Your task to perform on an android device: Search for vegetarian restaurants on Maps Image 0: 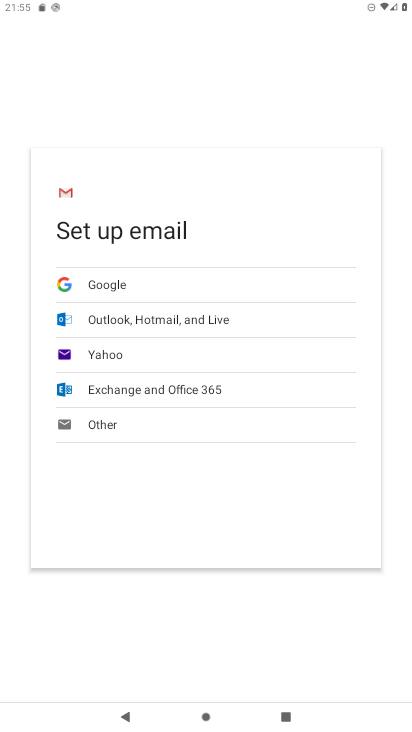
Step 0: press home button
Your task to perform on an android device: Search for vegetarian restaurants on Maps Image 1: 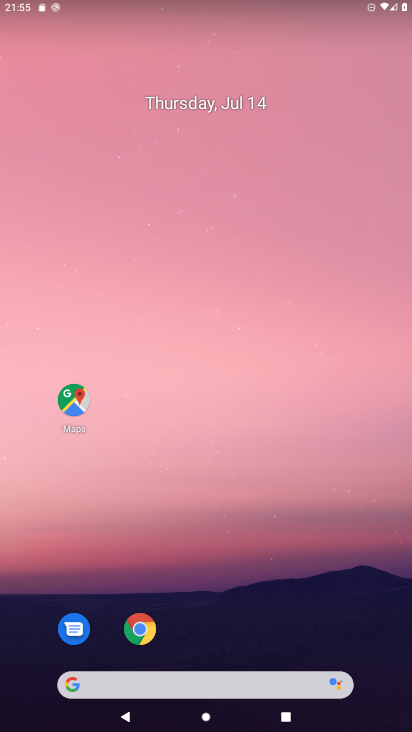
Step 1: click (55, 399)
Your task to perform on an android device: Search for vegetarian restaurants on Maps Image 2: 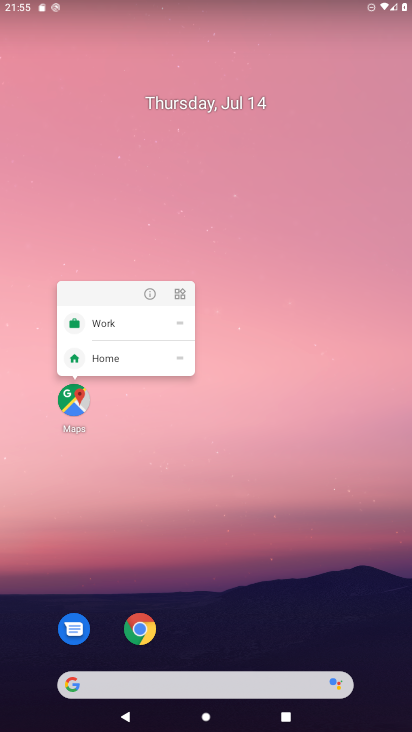
Step 2: click (82, 395)
Your task to perform on an android device: Search for vegetarian restaurants on Maps Image 3: 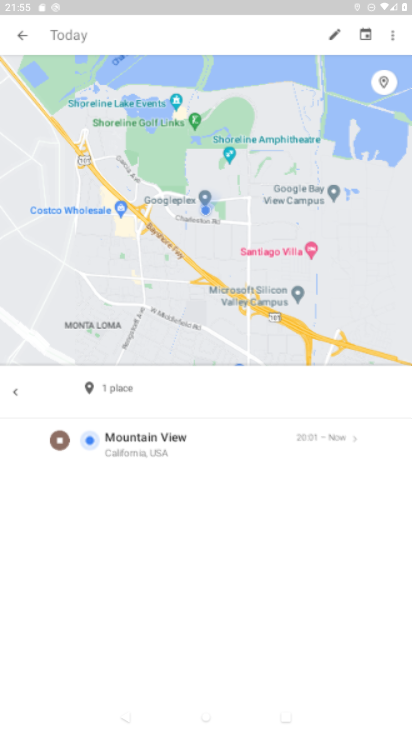
Step 3: click (23, 28)
Your task to perform on an android device: Search for vegetarian restaurants on Maps Image 4: 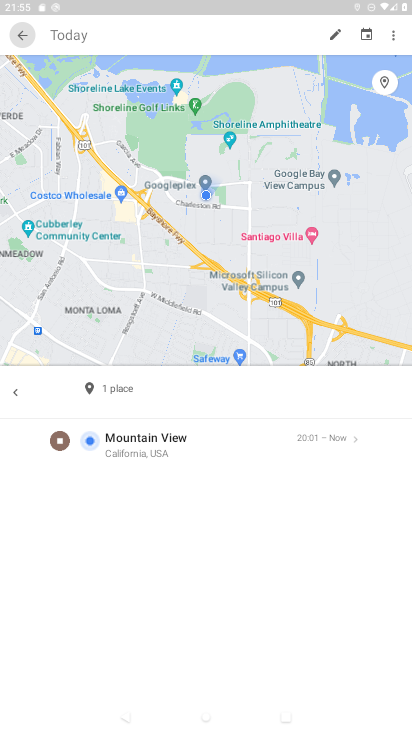
Step 4: click (13, 35)
Your task to perform on an android device: Search for vegetarian restaurants on Maps Image 5: 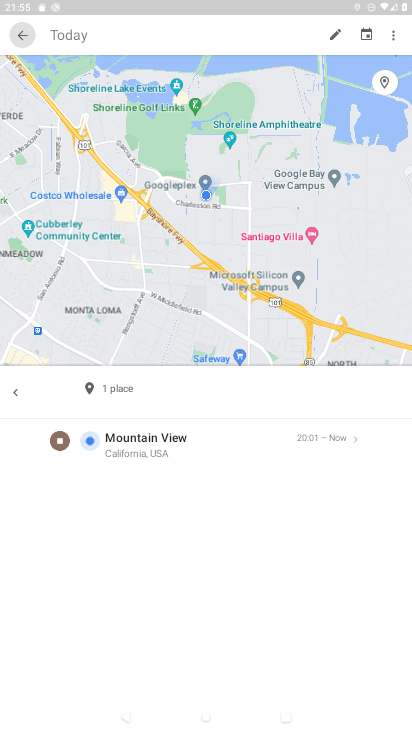
Step 5: click (24, 33)
Your task to perform on an android device: Search for vegetarian restaurants on Maps Image 6: 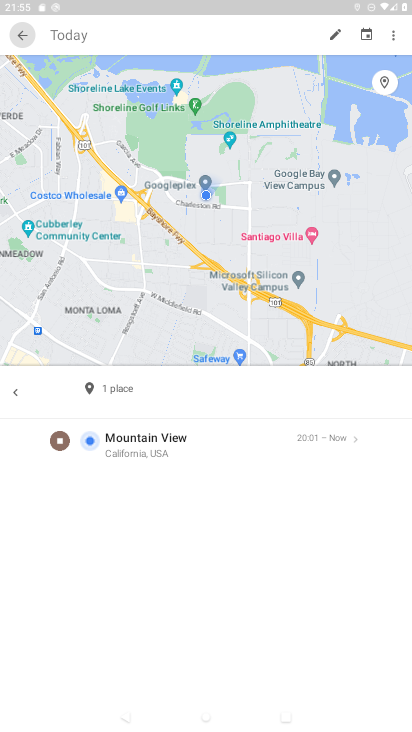
Step 6: click (24, 33)
Your task to perform on an android device: Search for vegetarian restaurants on Maps Image 7: 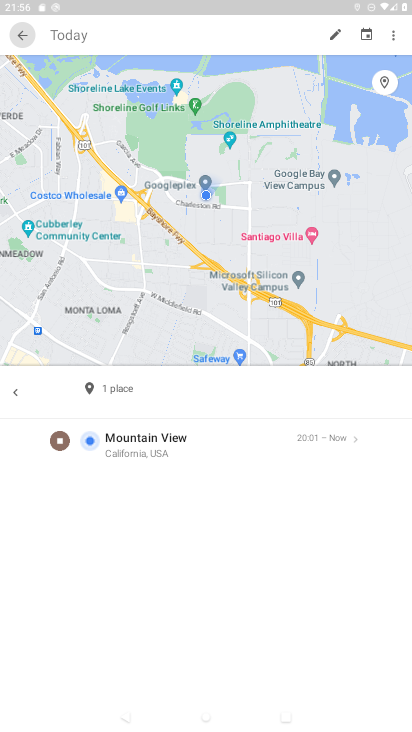
Step 7: task complete